Your task to perform on an android device: Open Google Maps and go to "Timeline" Image 0: 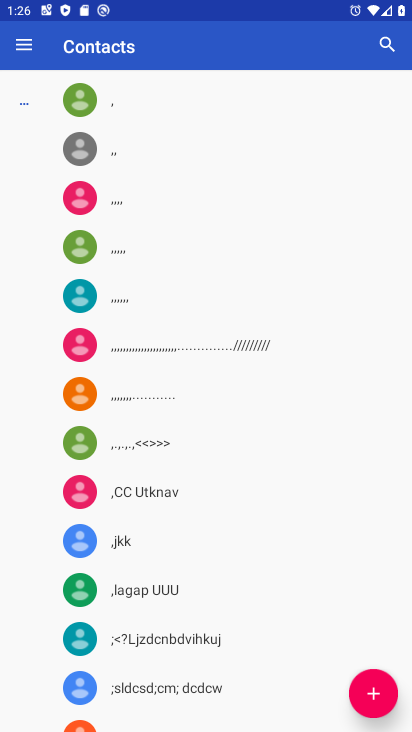
Step 0: press home button
Your task to perform on an android device: Open Google Maps and go to "Timeline" Image 1: 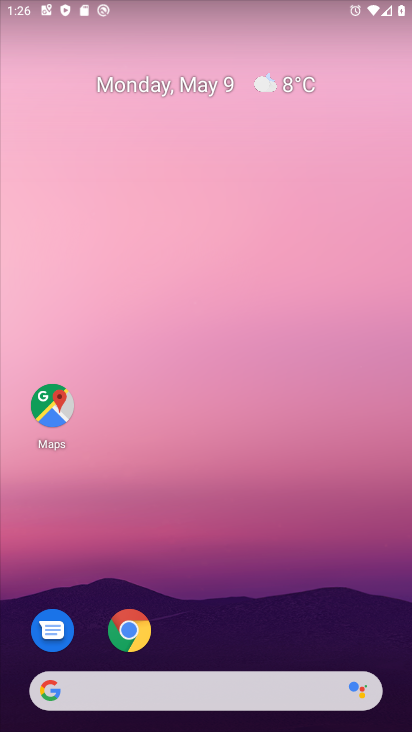
Step 1: drag from (332, 615) to (272, 72)
Your task to perform on an android device: Open Google Maps and go to "Timeline" Image 2: 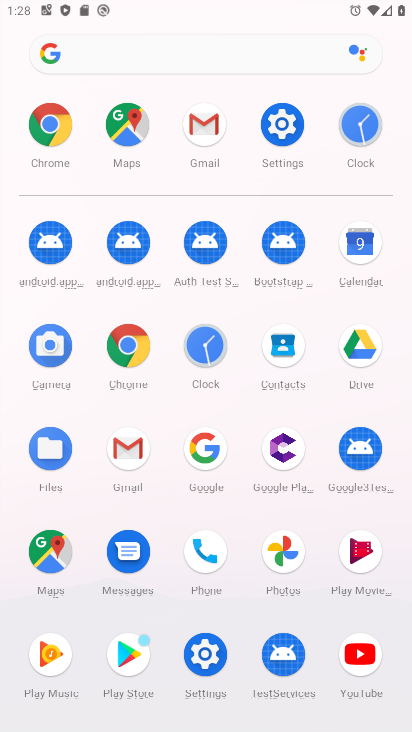
Step 2: click (48, 548)
Your task to perform on an android device: Open Google Maps and go to "Timeline" Image 3: 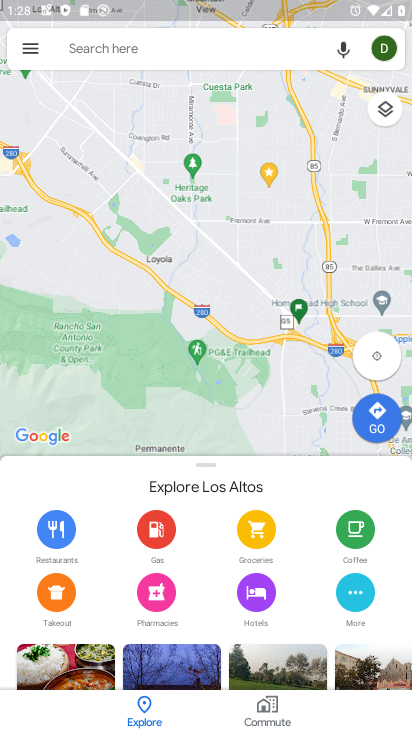
Step 3: click (19, 43)
Your task to perform on an android device: Open Google Maps and go to "Timeline" Image 4: 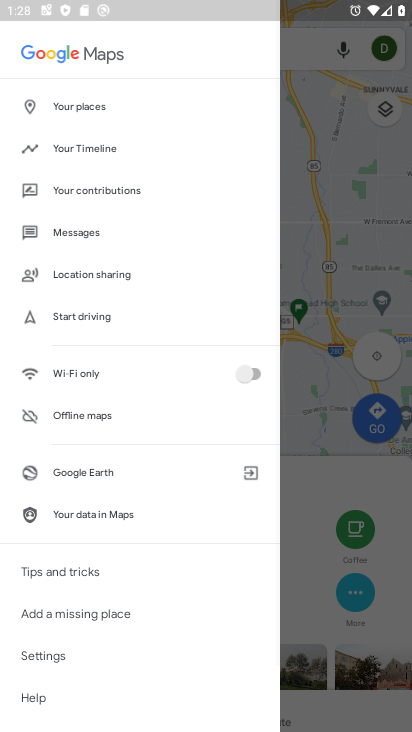
Step 4: click (131, 140)
Your task to perform on an android device: Open Google Maps and go to "Timeline" Image 5: 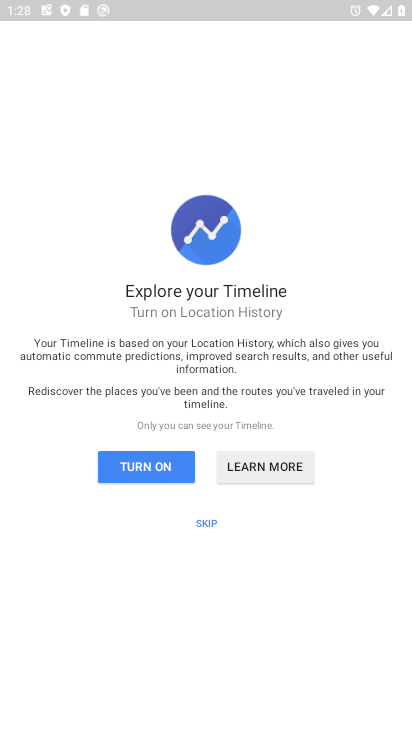
Step 5: task complete